Your task to perform on an android device: What's the weather going to be this weekend? Image 0: 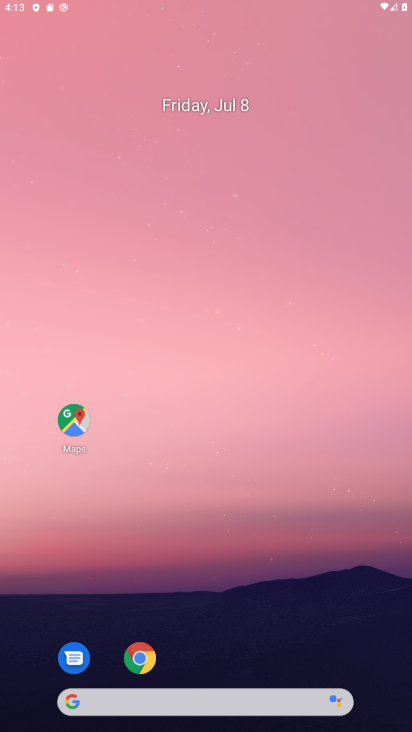
Step 0: drag from (285, 342) to (285, 57)
Your task to perform on an android device: What's the weather going to be this weekend? Image 1: 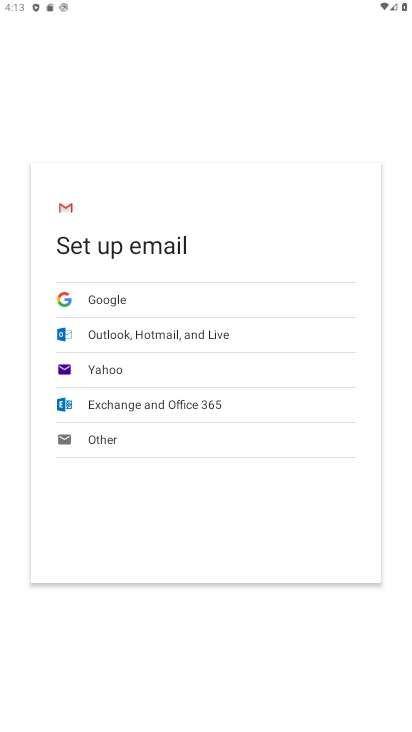
Step 1: press home button
Your task to perform on an android device: What's the weather going to be this weekend? Image 2: 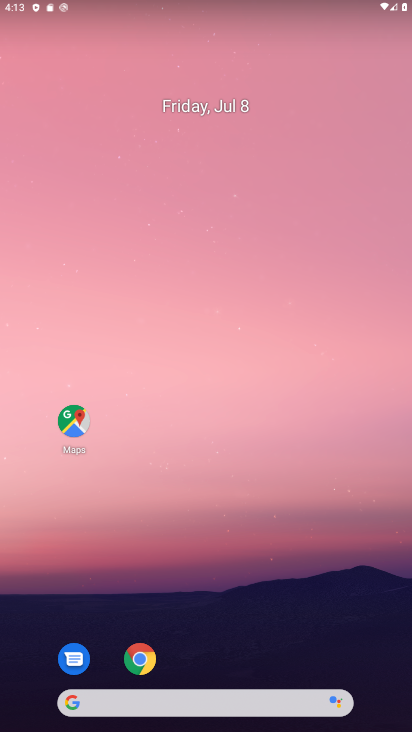
Step 2: drag from (252, 666) to (246, 103)
Your task to perform on an android device: What's the weather going to be this weekend? Image 3: 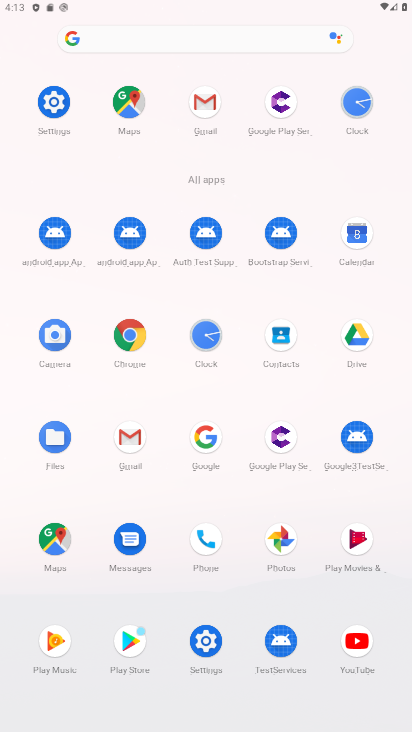
Step 3: click (125, 335)
Your task to perform on an android device: What's the weather going to be this weekend? Image 4: 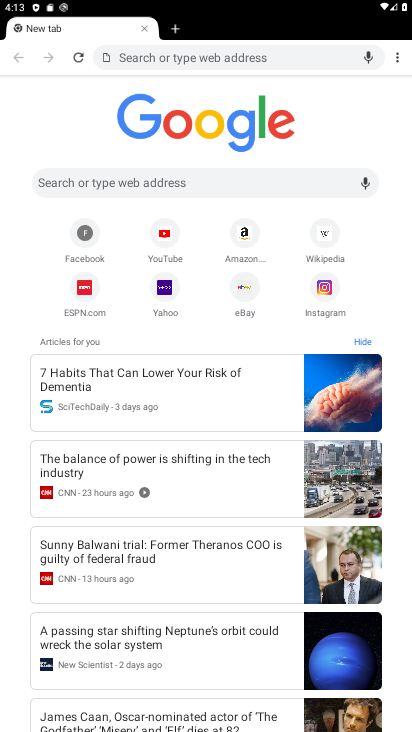
Step 4: click (152, 174)
Your task to perform on an android device: What's the weather going to be this weekend? Image 5: 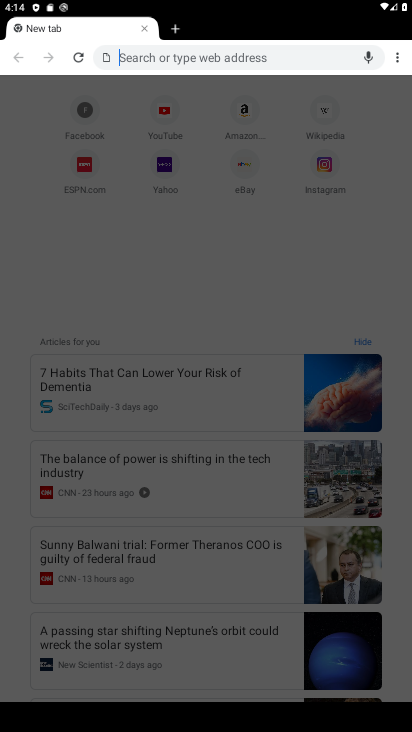
Step 5: type "What's the weather going to be this weekend?"
Your task to perform on an android device: What's the weather going to be this weekend? Image 6: 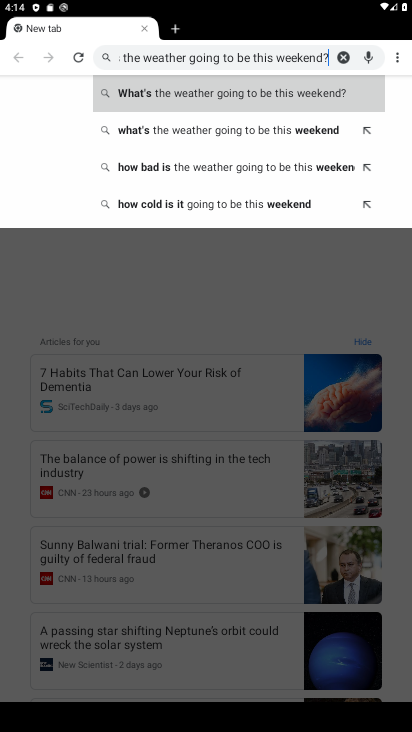
Step 6: click (216, 100)
Your task to perform on an android device: What's the weather going to be this weekend? Image 7: 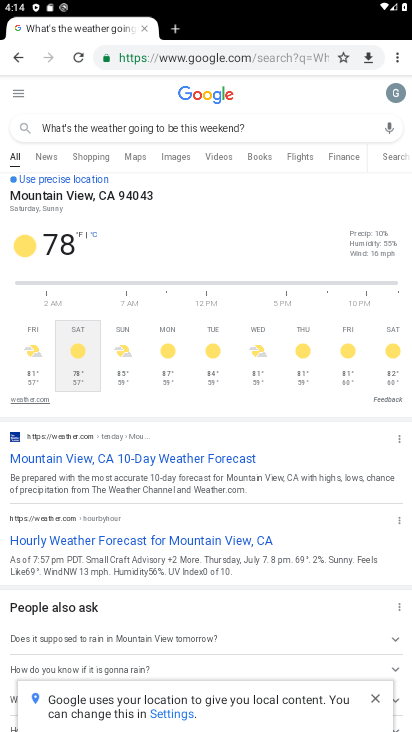
Step 7: task complete